Your task to perform on an android device: Check the news Image 0: 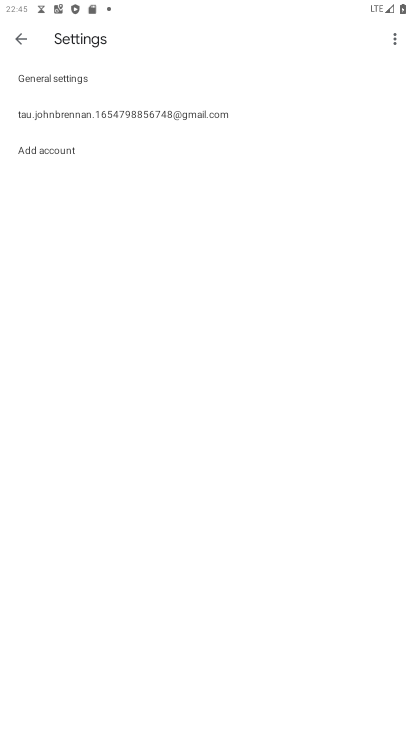
Step 0: press home button
Your task to perform on an android device: Check the news Image 1: 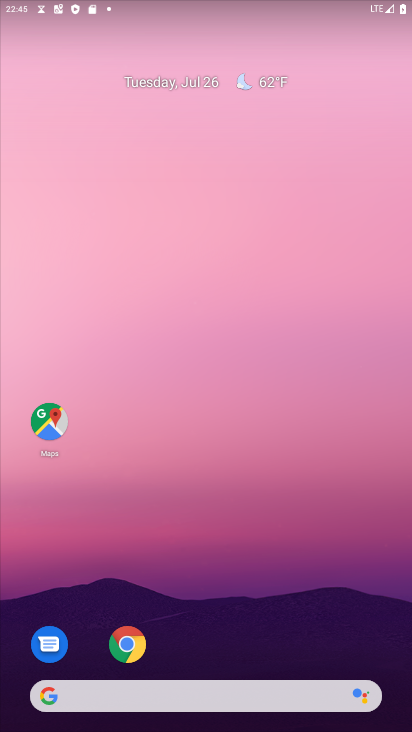
Step 1: click (128, 696)
Your task to perform on an android device: Check the news Image 2: 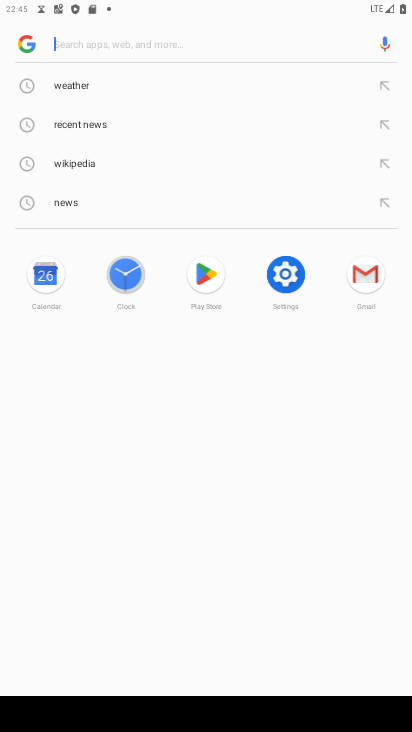
Step 2: click (61, 199)
Your task to perform on an android device: Check the news Image 3: 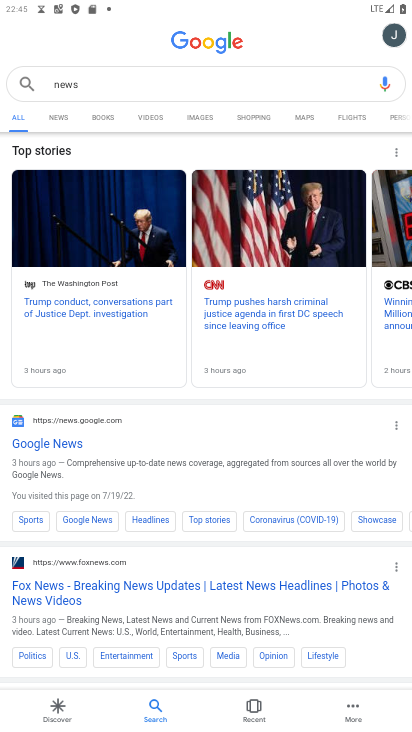
Step 3: click (63, 84)
Your task to perform on an android device: Check the news Image 4: 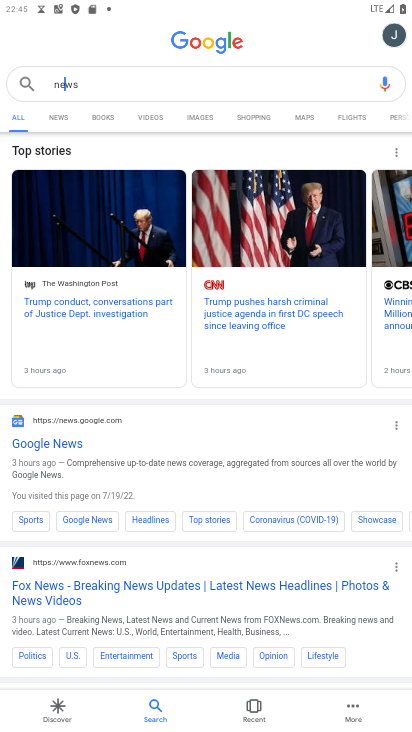
Step 4: click (61, 113)
Your task to perform on an android device: Check the news Image 5: 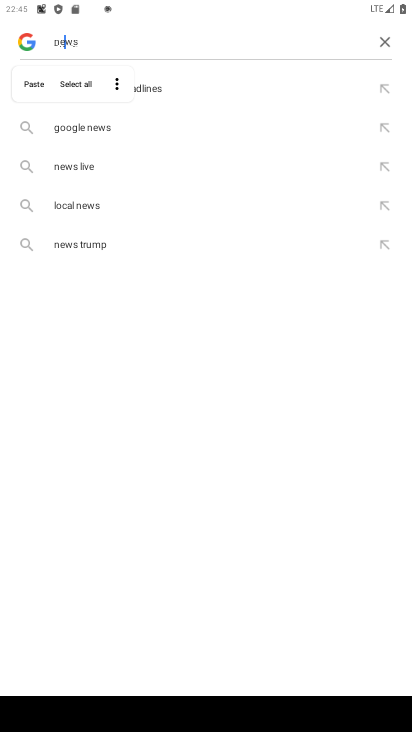
Step 5: click (84, 44)
Your task to perform on an android device: Check the news Image 6: 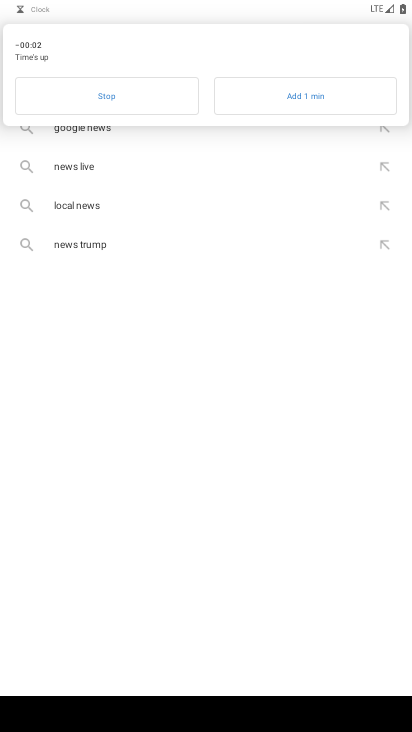
Step 6: click (110, 93)
Your task to perform on an android device: Check the news Image 7: 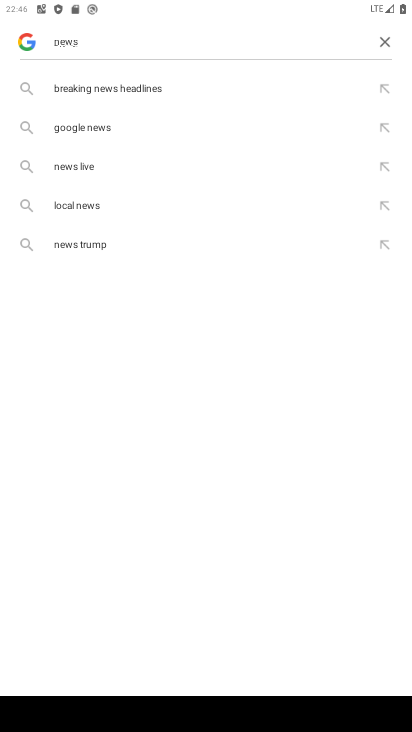
Step 7: click (101, 48)
Your task to perform on an android device: Check the news Image 8: 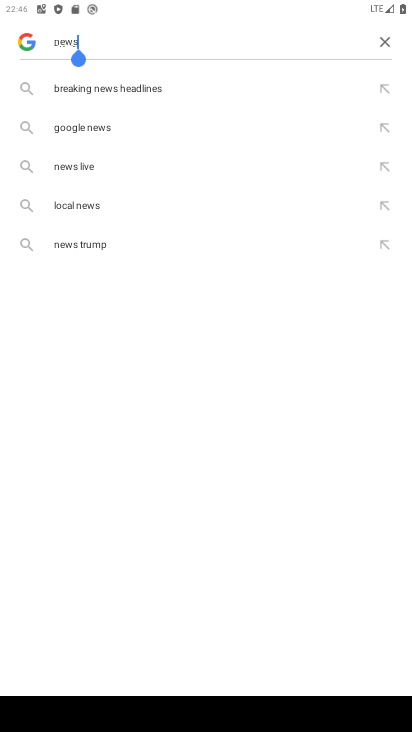
Step 8: click (386, 41)
Your task to perform on an android device: Check the news Image 9: 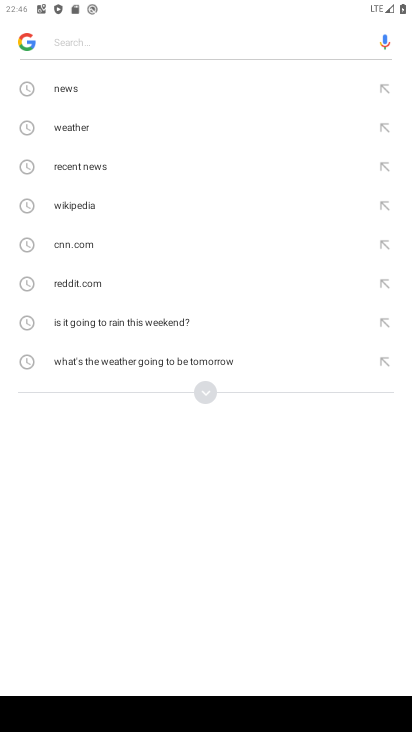
Step 9: click (69, 88)
Your task to perform on an android device: Check the news Image 10: 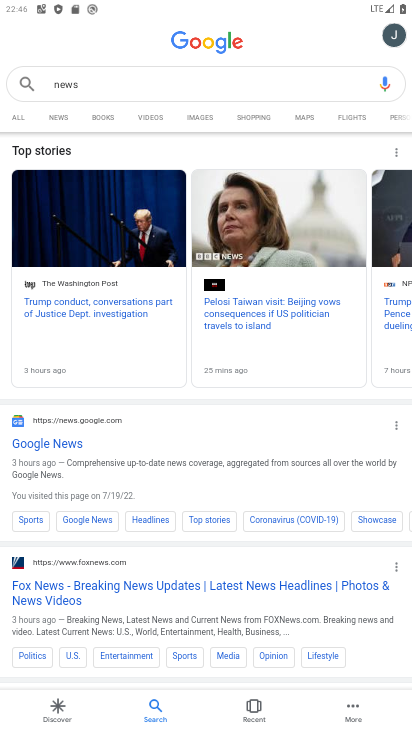
Step 10: click (65, 122)
Your task to perform on an android device: Check the news Image 11: 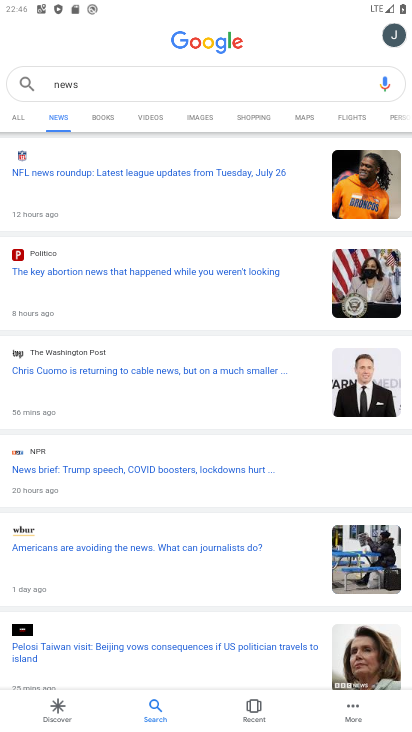
Step 11: task complete